Your task to perform on an android device: change timer sound Image 0: 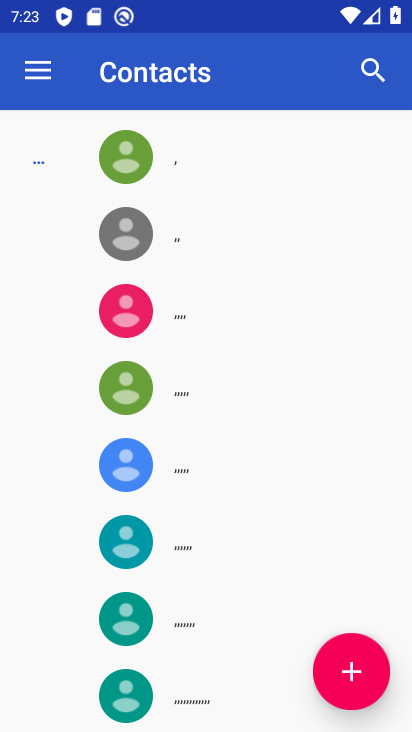
Step 0: press home button
Your task to perform on an android device: change timer sound Image 1: 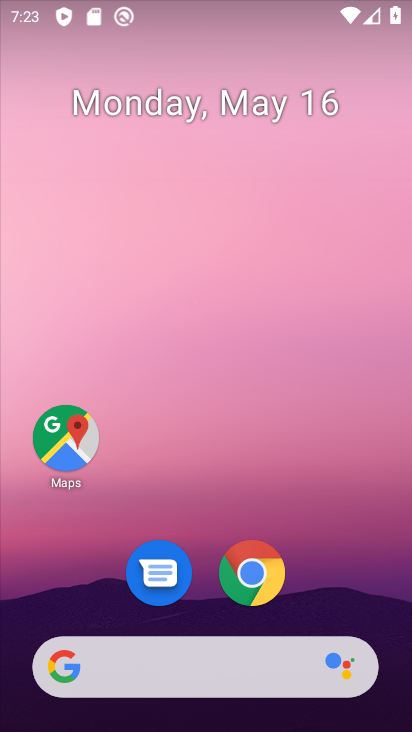
Step 1: drag from (393, 578) to (396, 79)
Your task to perform on an android device: change timer sound Image 2: 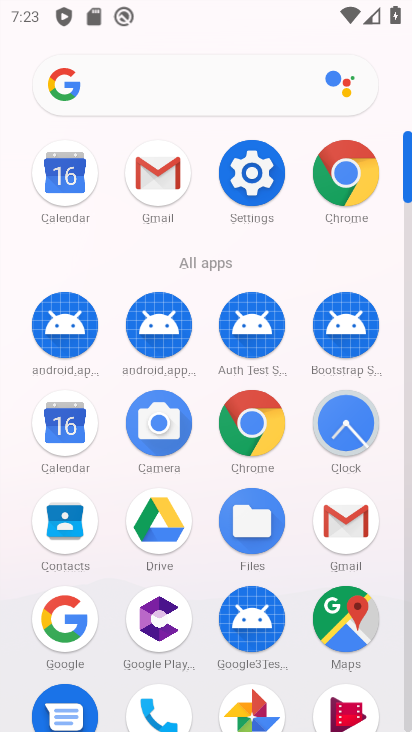
Step 2: click (338, 431)
Your task to perform on an android device: change timer sound Image 3: 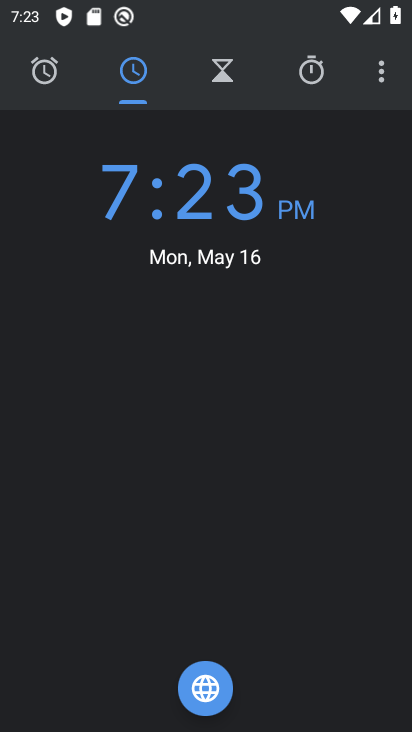
Step 3: click (305, 82)
Your task to perform on an android device: change timer sound Image 4: 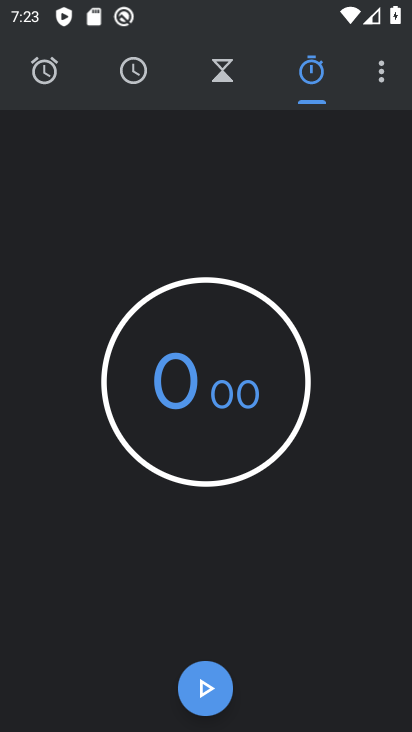
Step 4: click (383, 78)
Your task to perform on an android device: change timer sound Image 5: 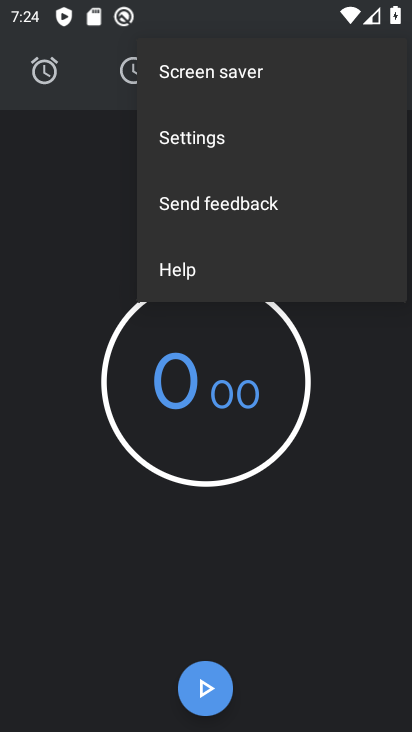
Step 5: click (205, 136)
Your task to perform on an android device: change timer sound Image 6: 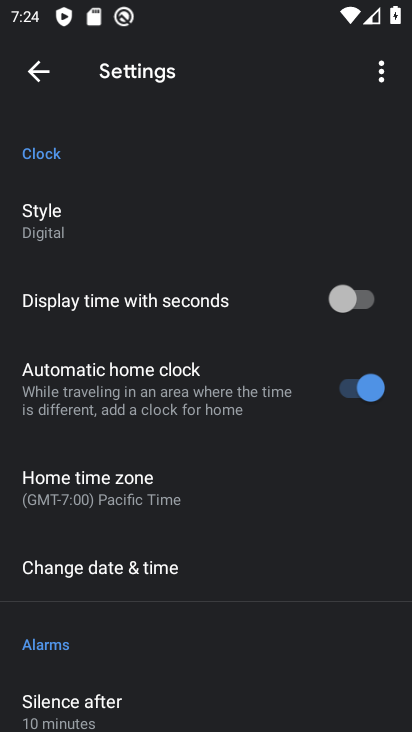
Step 6: drag from (264, 609) to (239, 103)
Your task to perform on an android device: change timer sound Image 7: 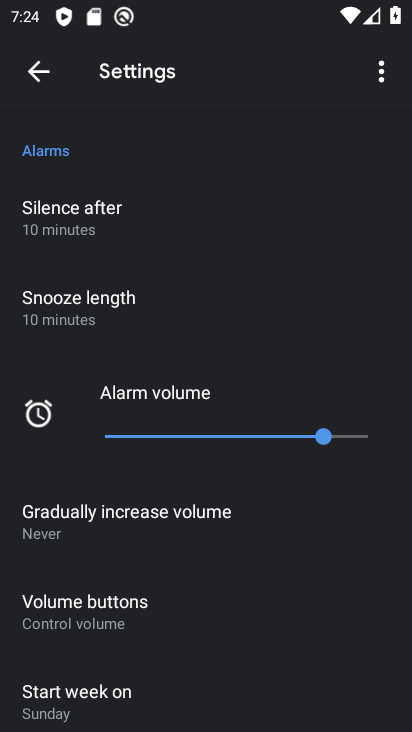
Step 7: drag from (140, 636) to (223, 206)
Your task to perform on an android device: change timer sound Image 8: 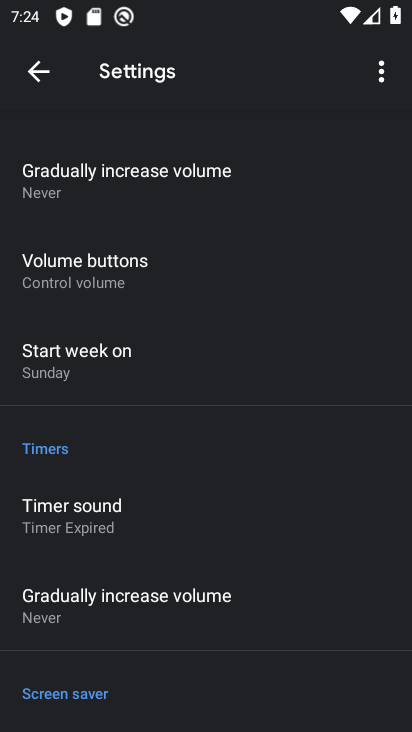
Step 8: drag from (109, 540) to (210, 125)
Your task to perform on an android device: change timer sound Image 9: 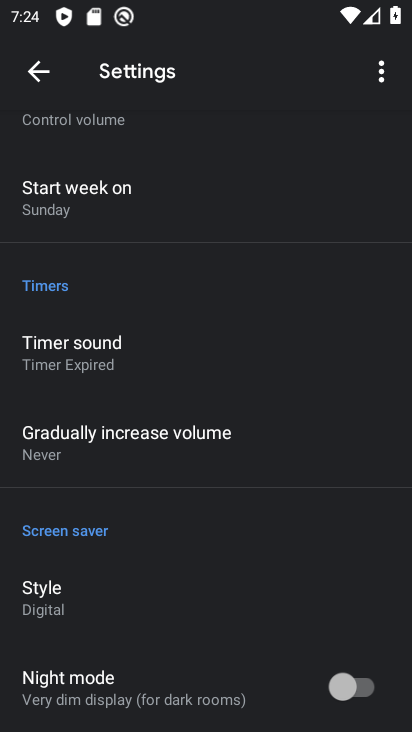
Step 9: click (103, 368)
Your task to perform on an android device: change timer sound Image 10: 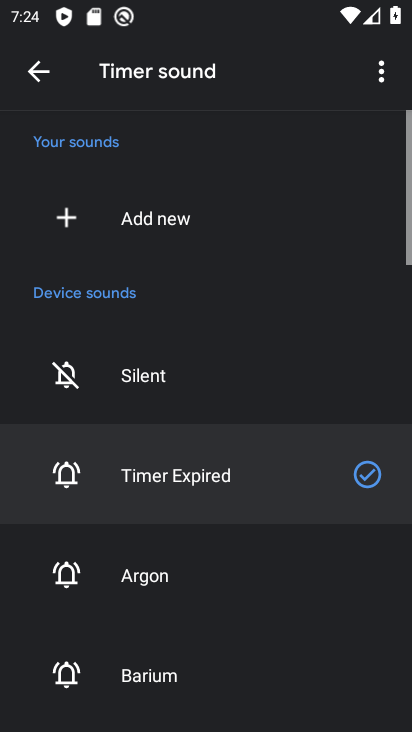
Step 10: click (146, 591)
Your task to perform on an android device: change timer sound Image 11: 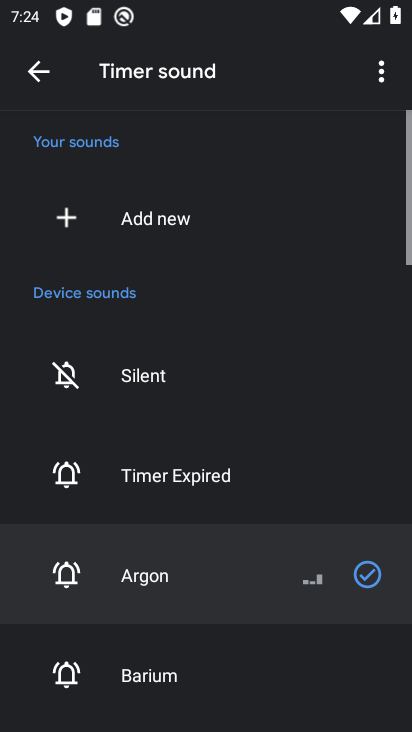
Step 11: task complete